Your task to perform on an android device: Show me popular videos on Youtube Image 0: 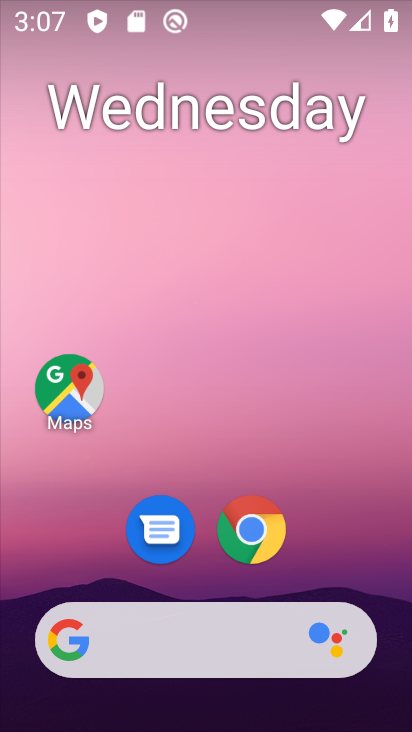
Step 0: drag from (225, 610) to (220, 135)
Your task to perform on an android device: Show me popular videos on Youtube Image 1: 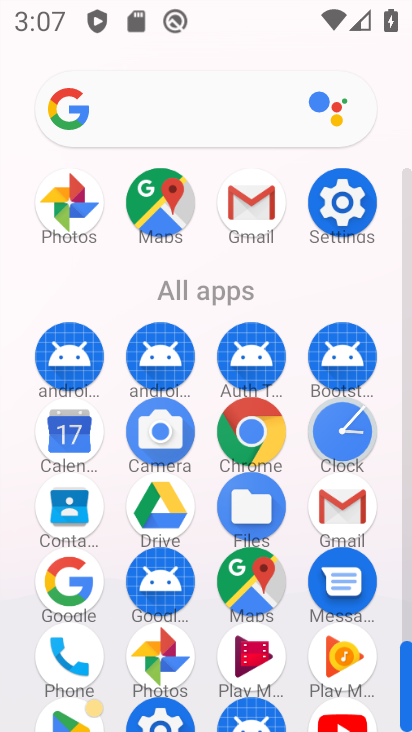
Step 1: click (343, 716)
Your task to perform on an android device: Show me popular videos on Youtube Image 2: 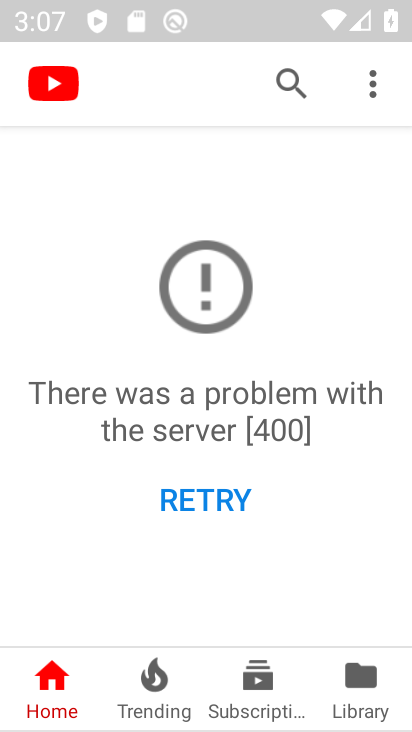
Step 2: click (140, 670)
Your task to perform on an android device: Show me popular videos on Youtube Image 3: 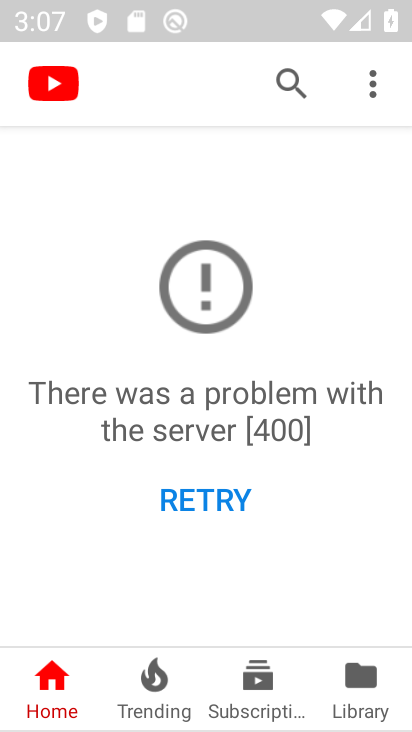
Step 3: click (144, 691)
Your task to perform on an android device: Show me popular videos on Youtube Image 4: 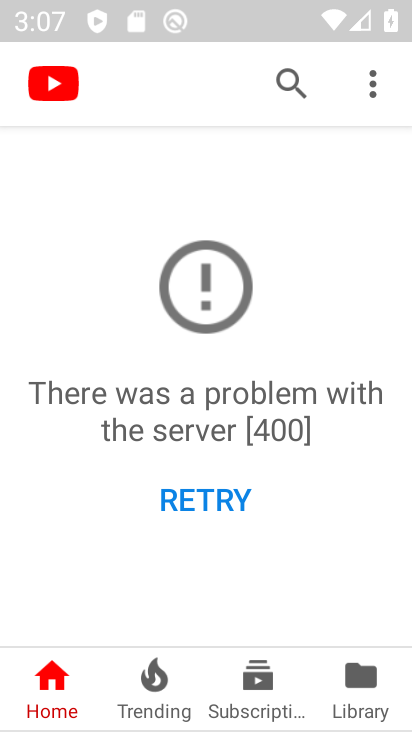
Step 4: task complete